Your task to perform on an android device: Clear the shopping cart on newegg.com. Search for razer blade on newegg.com, select the first entry, add it to the cart, then select checkout. Image 0: 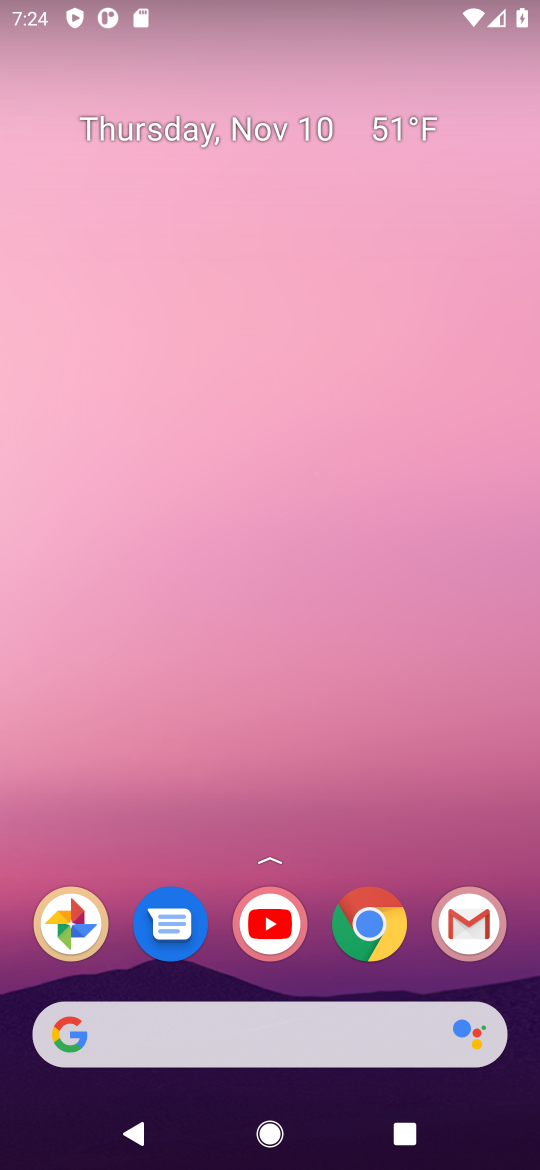
Step 0: click (379, 933)
Your task to perform on an android device: Clear the shopping cart on newegg.com. Search for razer blade on newegg.com, select the first entry, add it to the cart, then select checkout. Image 1: 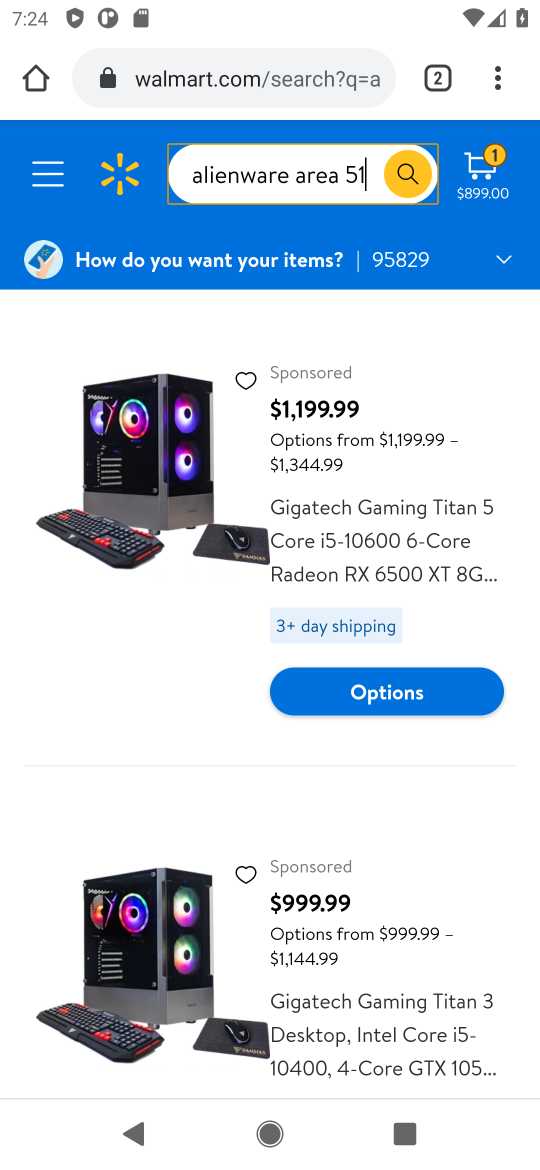
Step 1: click (265, 76)
Your task to perform on an android device: Clear the shopping cart on newegg.com. Search for razer blade on newegg.com, select the first entry, add it to the cart, then select checkout. Image 2: 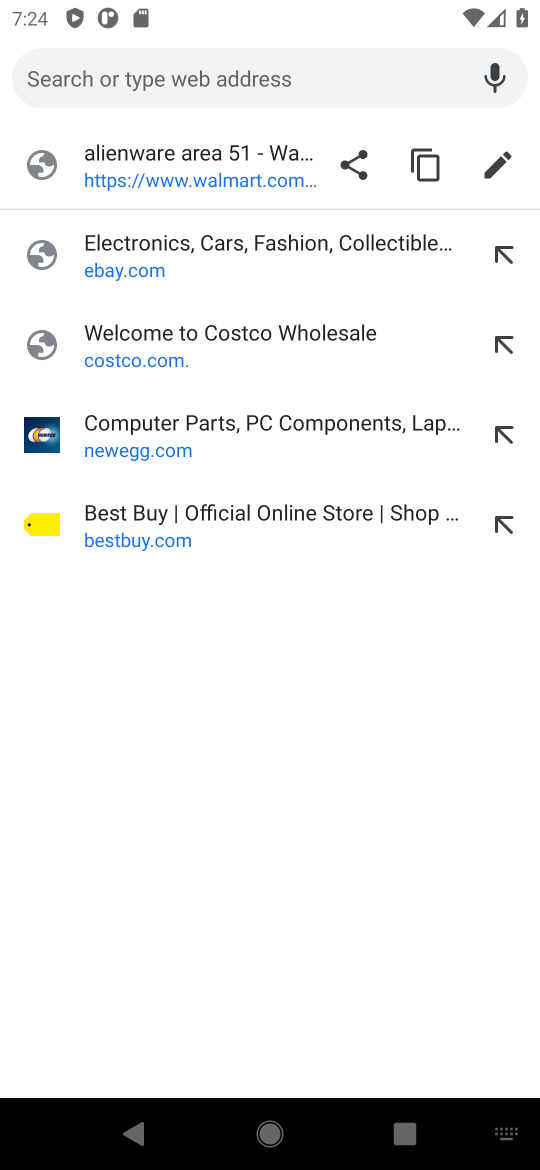
Step 2: click (105, 440)
Your task to perform on an android device: Clear the shopping cart on newegg.com. Search for razer blade on newegg.com, select the first entry, add it to the cart, then select checkout. Image 3: 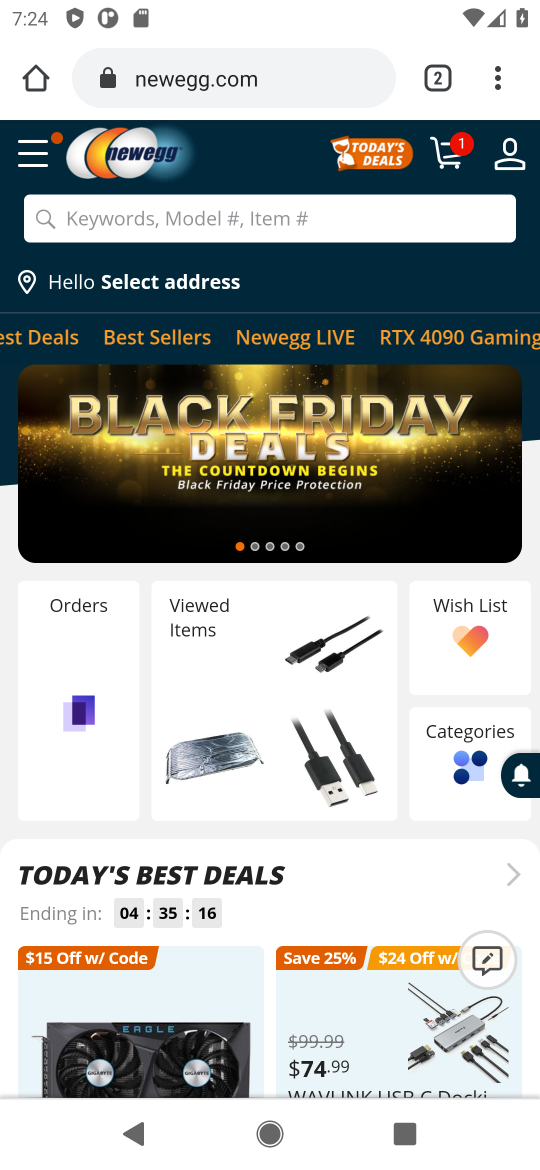
Step 3: click (445, 162)
Your task to perform on an android device: Clear the shopping cart on newegg.com. Search for razer blade on newegg.com, select the first entry, add it to the cart, then select checkout. Image 4: 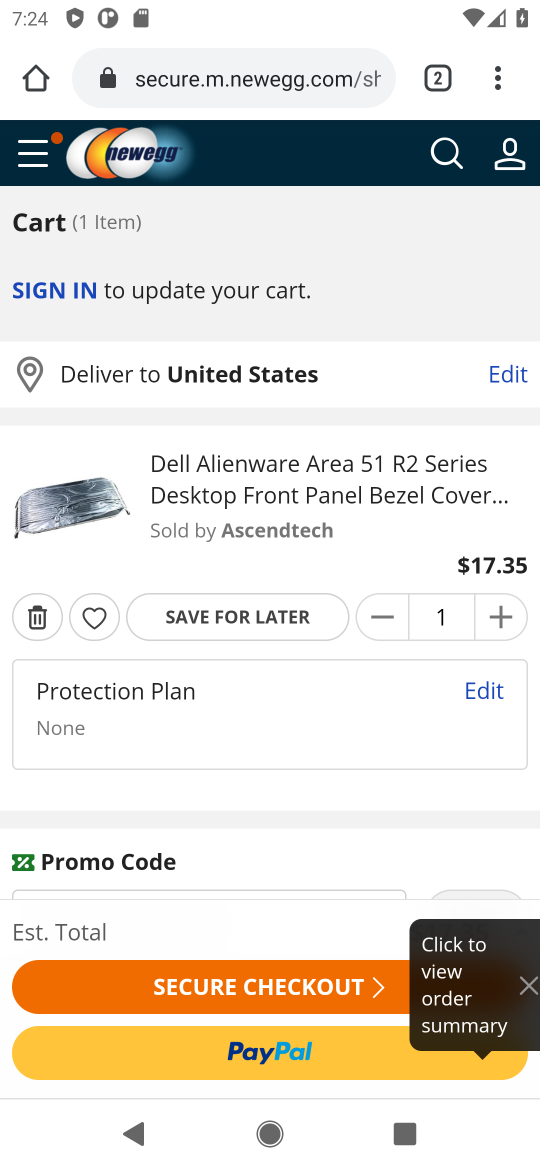
Step 4: click (32, 619)
Your task to perform on an android device: Clear the shopping cart on newegg.com. Search for razer blade on newegg.com, select the first entry, add it to the cart, then select checkout. Image 5: 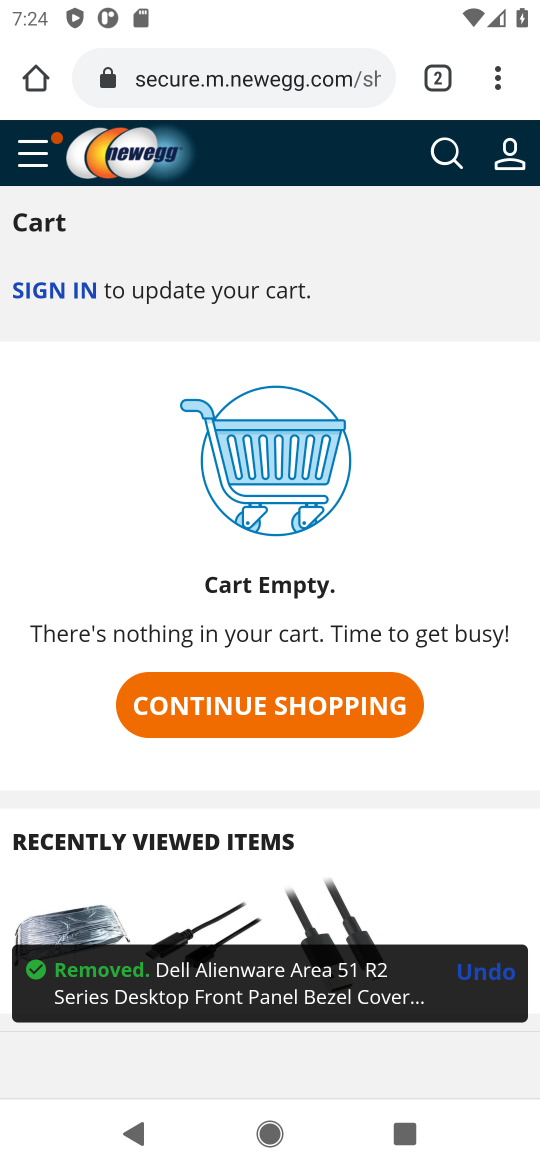
Step 5: click (208, 705)
Your task to perform on an android device: Clear the shopping cart on newegg.com. Search for razer blade on newegg.com, select the first entry, add it to the cart, then select checkout. Image 6: 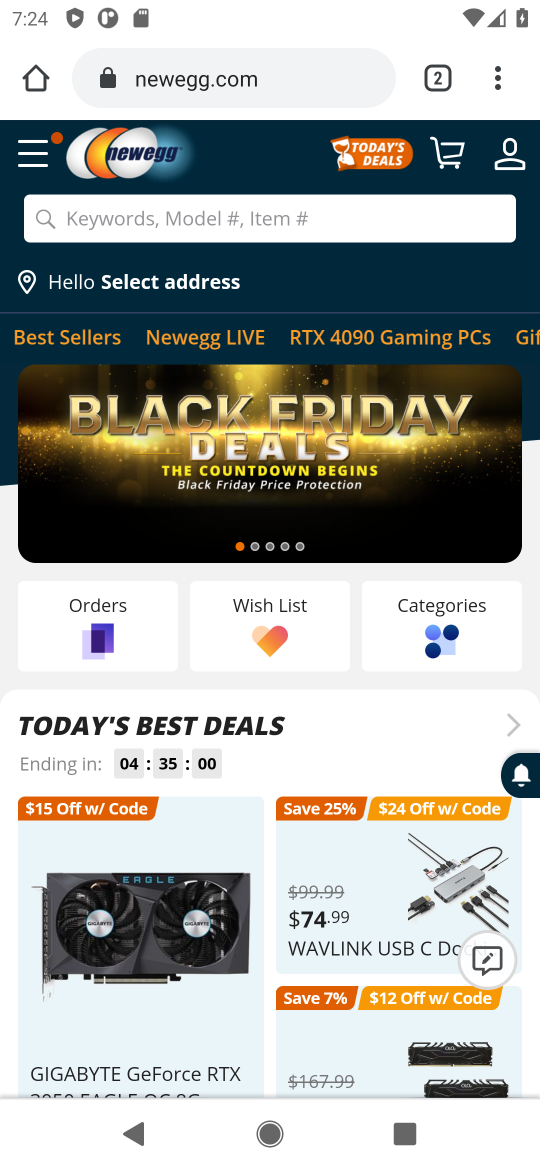
Step 6: click (230, 238)
Your task to perform on an android device: Clear the shopping cart on newegg.com. Search for razer blade on newegg.com, select the first entry, add it to the cart, then select checkout. Image 7: 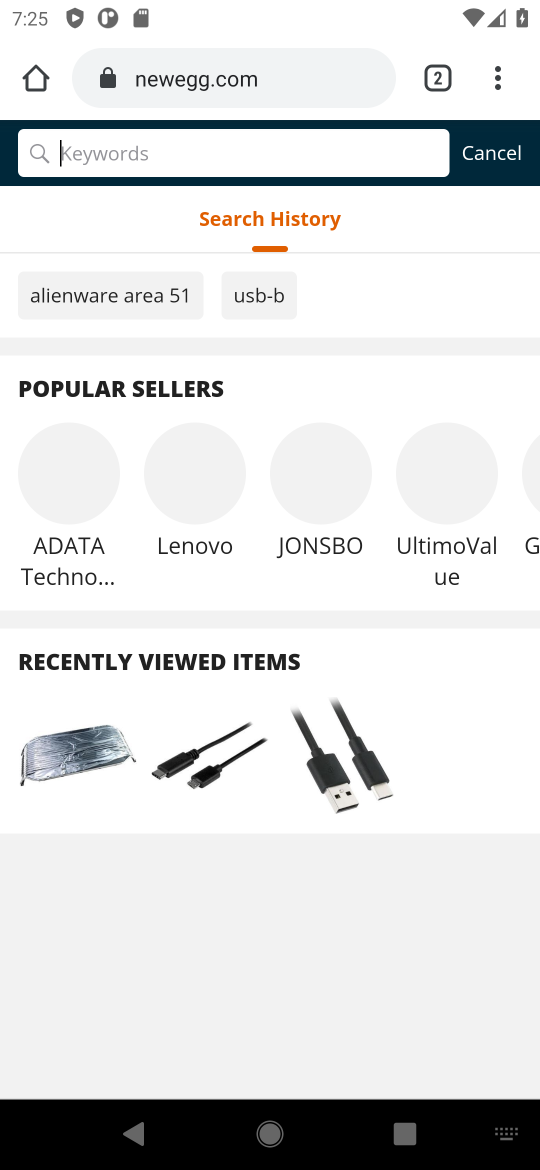
Step 7: type "razer blade"
Your task to perform on an android device: Clear the shopping cart on newegg.com. Search for razer blade on newegg.com, select the first entry, add it to the cart, then select checkout. Image 8: 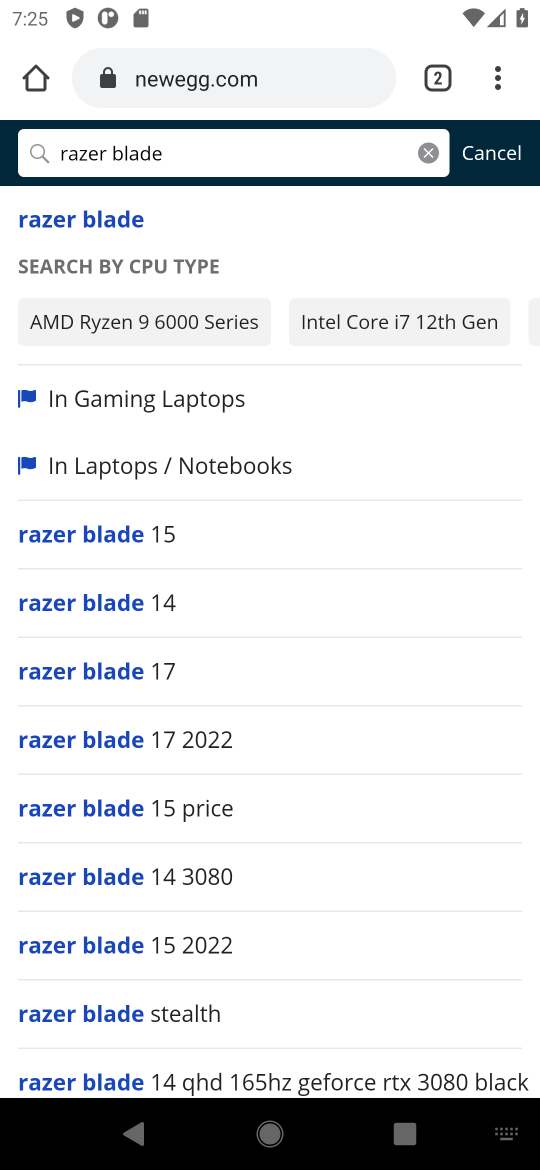
Step 8: click (72, 222)
Your task to perform on an android device: Clear the shopping cart on newegg.com. Search for razer blade on newegg.com, select the first entry, add it to the cart, then select checkout. Image 9: 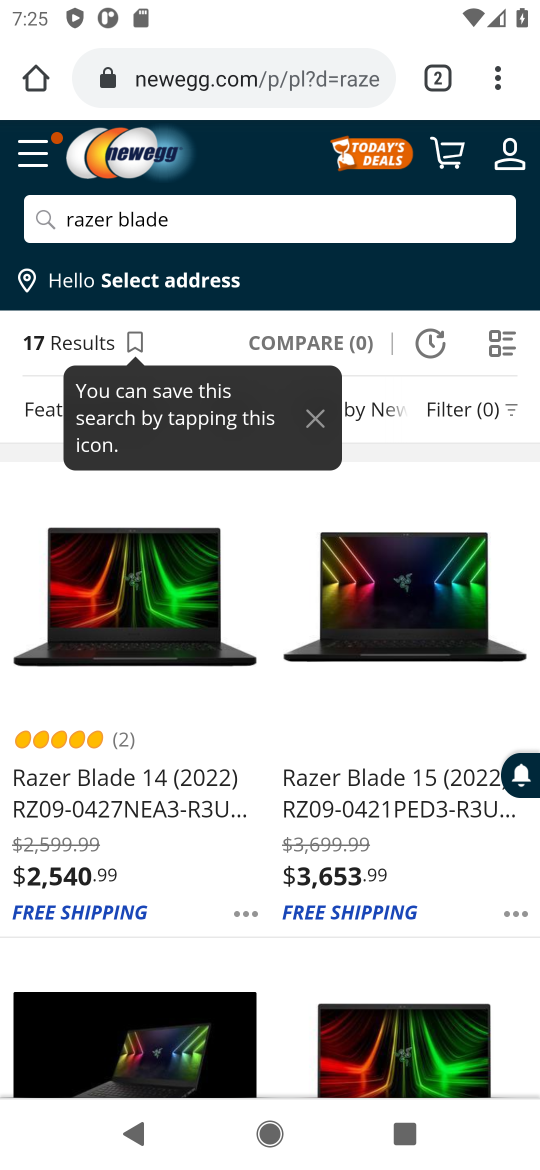
Step 9: click (122, 668)
Your task to perform on an android device: Clear the shopping cart on newegg.com. Search for razer blade on newegg.com, select the first entry, add it to the cart, then select checkout. Image 10: 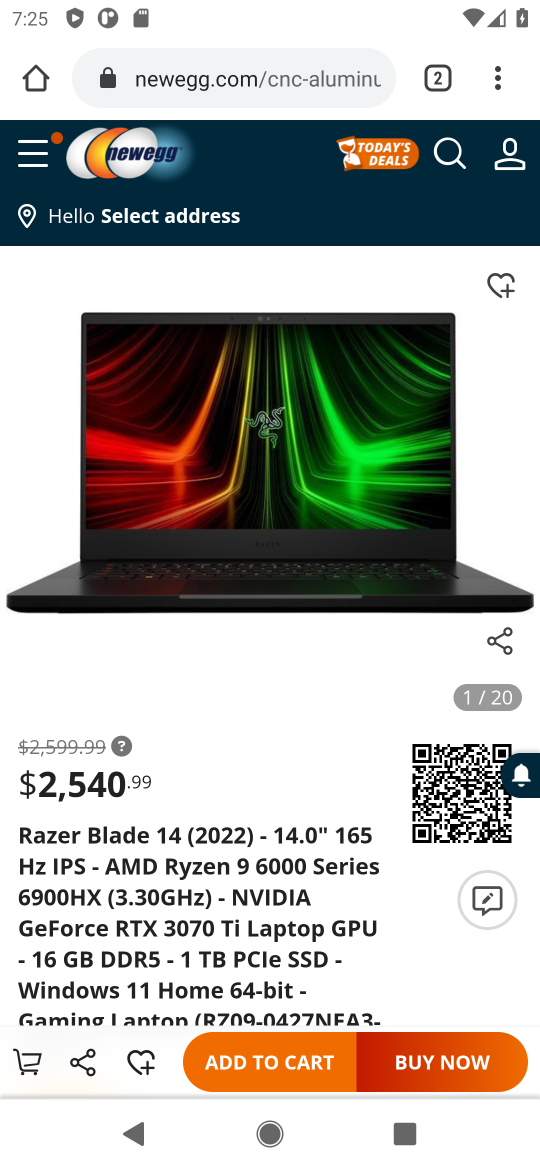
Step 10: click (247, 1061)
Your task to perform on an android device: Clear the shopping cart on newegg.com. Search for razer blade on newegg.com, select the first entry, add it to the cart, then select checkout. Image 11: 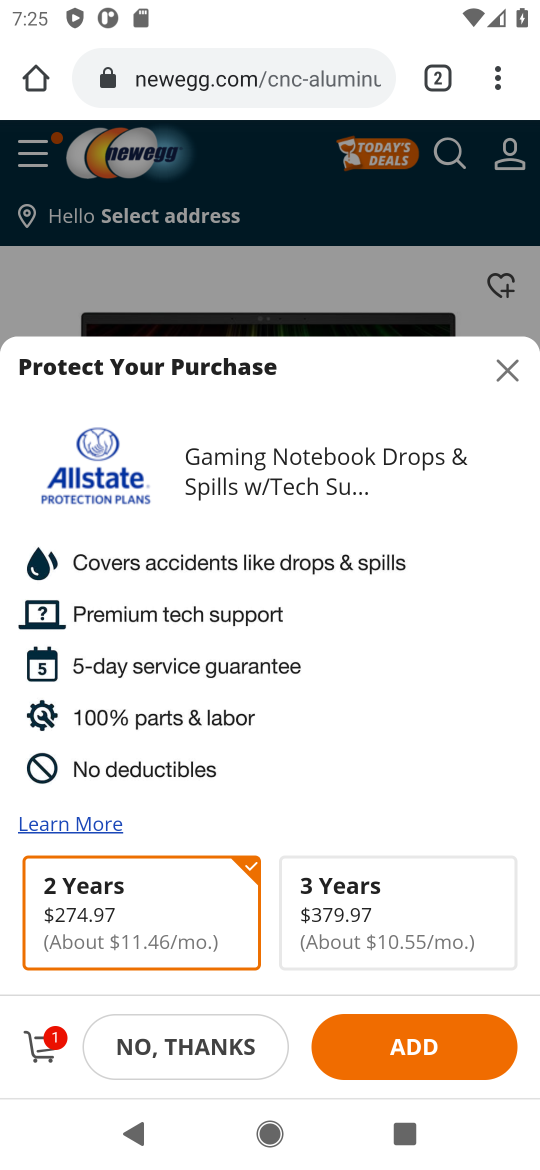
Step 11: click (50, 1047)
Your task to perform on an android device: Clear the shopping cart on newegg.com. Search for razer blade on newegg.com, select the first entry, add it to the cart, then select checkout. Image 12: 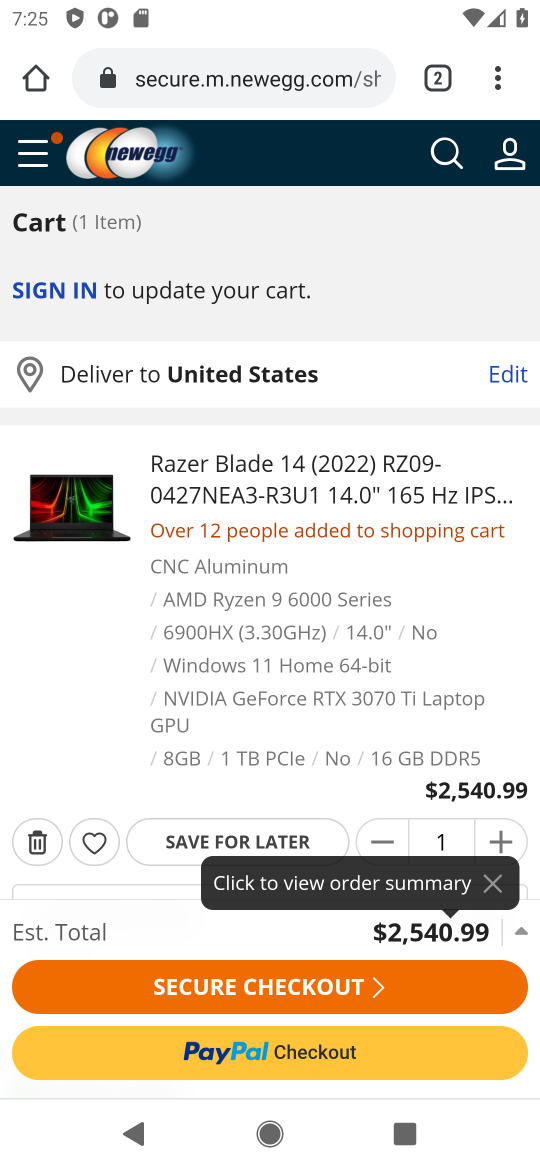
Step 12: click (233, 988)
Your task to perform on an android device: Clear the shopping cart on newegg.com. Search for razer blade on newegg.com, select the first entry, add it to the cart, then select checkout. Image 13: 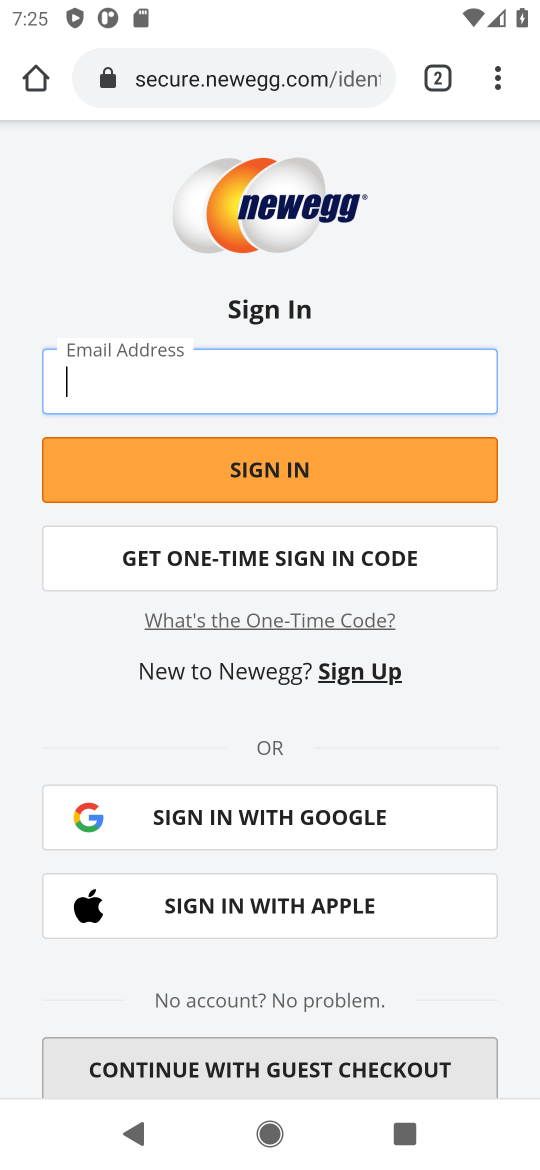
Step 13: task complete